Your task to perform on an android device: turn on wifi Image 0: 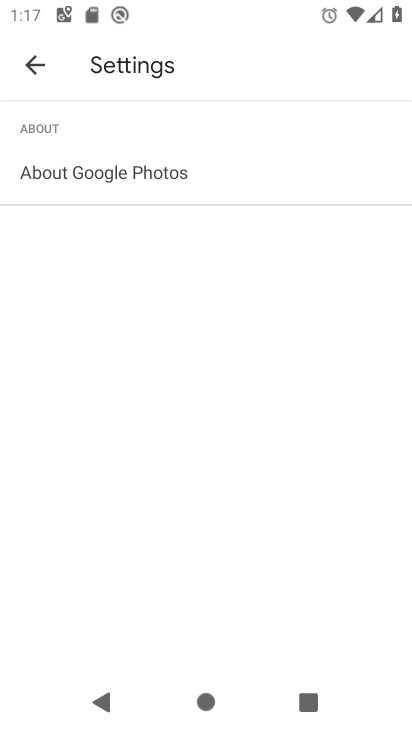
Step 0: press home button
Your task to perform on an android device: turn on wifi Image 1: 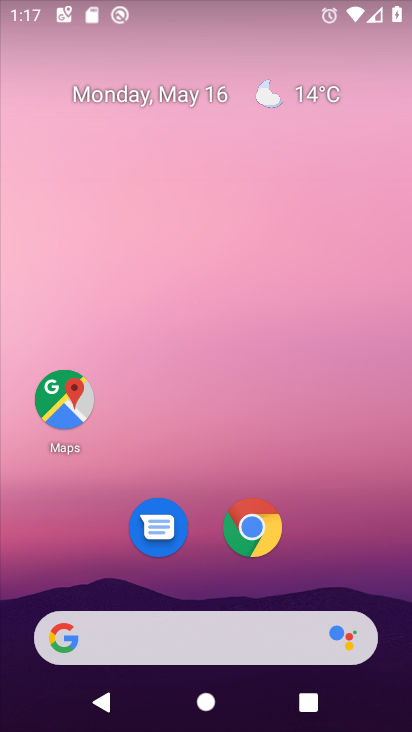
Step 1: drag from (205, 557) to (226, 4)
Your task to perform on an android device: turn on wifi Image 2: 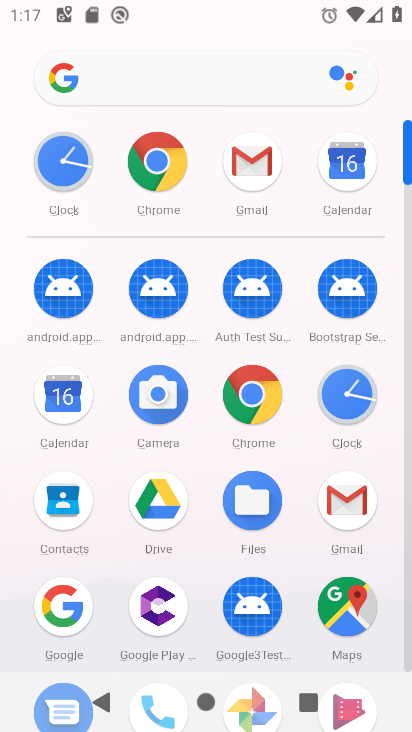
Step 2: drag from (206, 612) to (271, 199)
Your task to perform on an android device: turn on wifi Image 3: 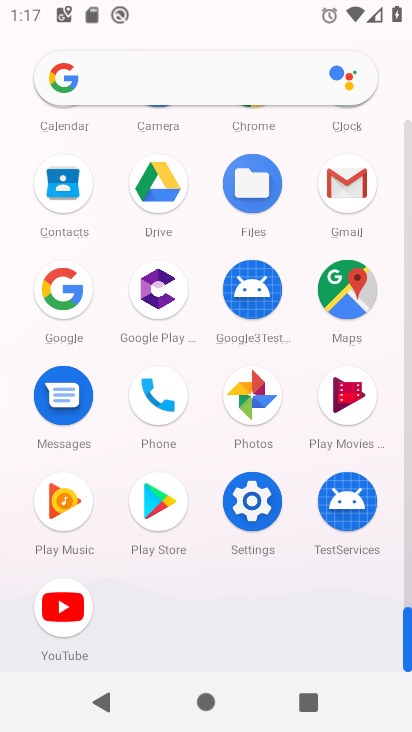
Step 3: click (254, 522)
Your task to perform on an android device: turn on wifi Image 4: 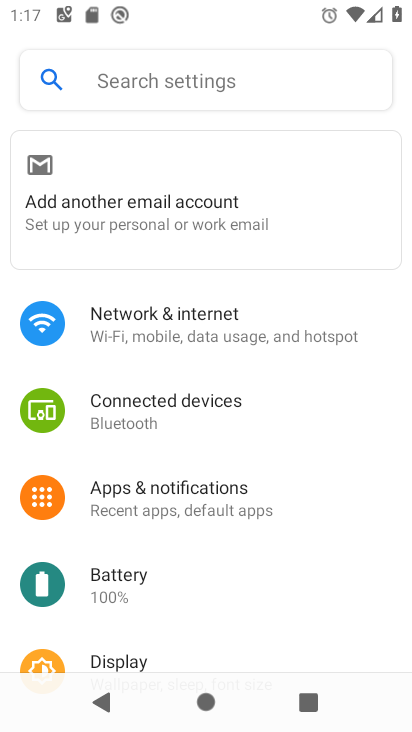
Step 4: click (205, 333)
Your task to perform on an android device: turn on wifi Image 5: 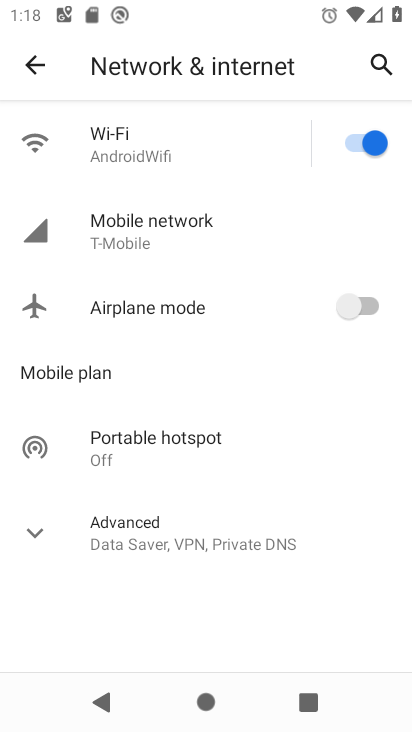
Step 5: task complete